Your task to perform on an android device: Check the weather Image 0: 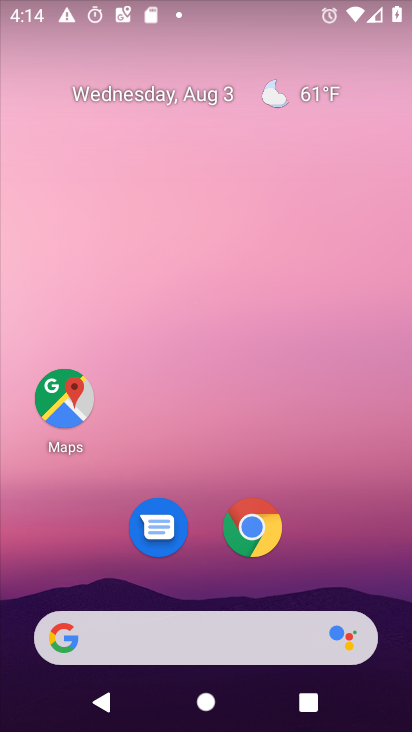
Step 0: drag from (318, 514) to (338, 112)
Your task to perform on an android device: Check the weather Image 1: 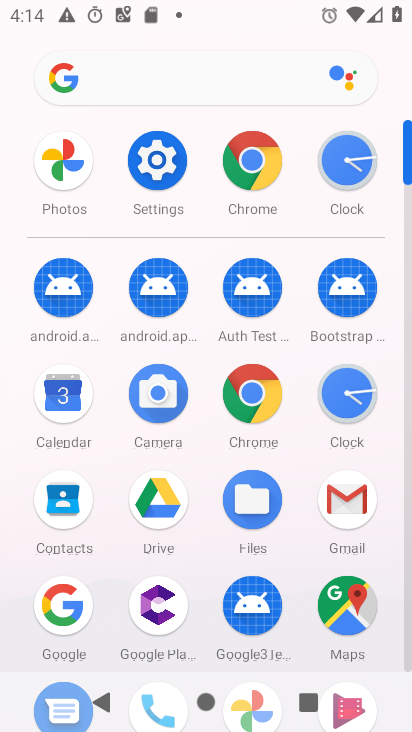
Step 1: click (253, 397)
Your task to perform on an android device: Check the weather Image 2: 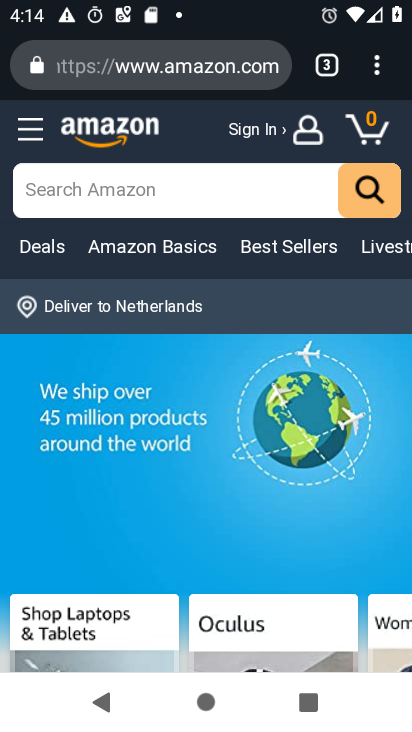
Step 2: click (204, 67)
Your task to perform on an android device: Check the weather Image 3: 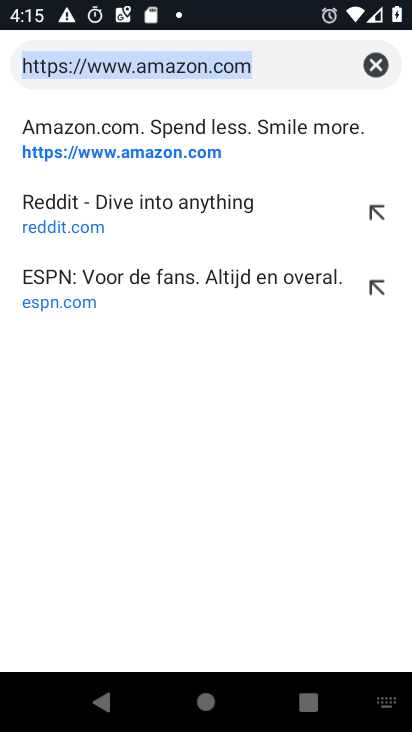
Step 3: type "weather"
Your task to perform on an android device: Check the weather Image 4: 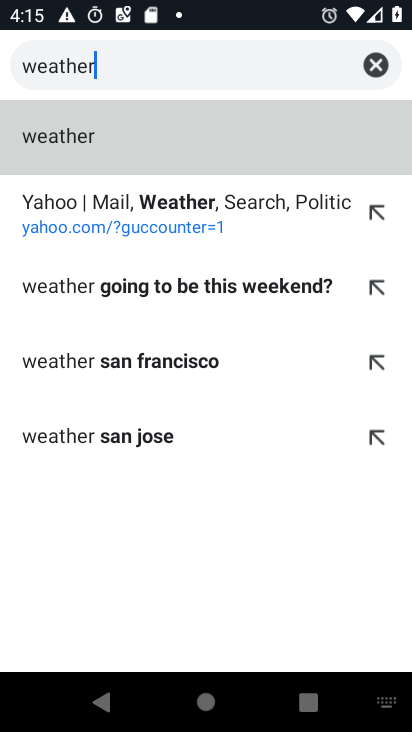
Step 4: click (103, 144)
Your task to perform on an android device: Check the weather Image 5: 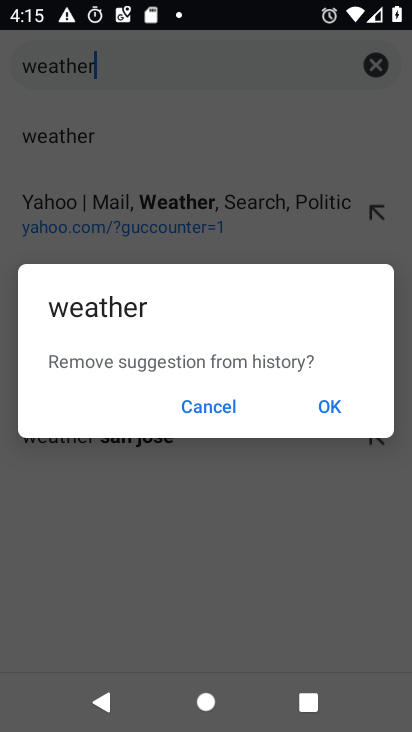
Step 5: click (200, 393)
Your task to perform on an android device: Check the weather Image 6: 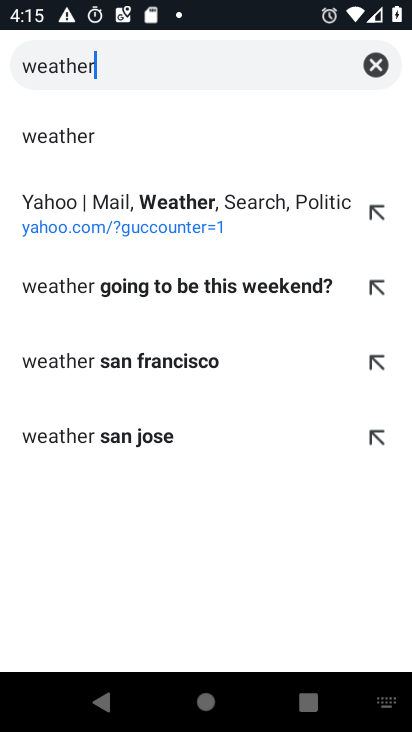
Step 6: click (79, 134)
Your task to perform on an android device: Check the weather Image 7: 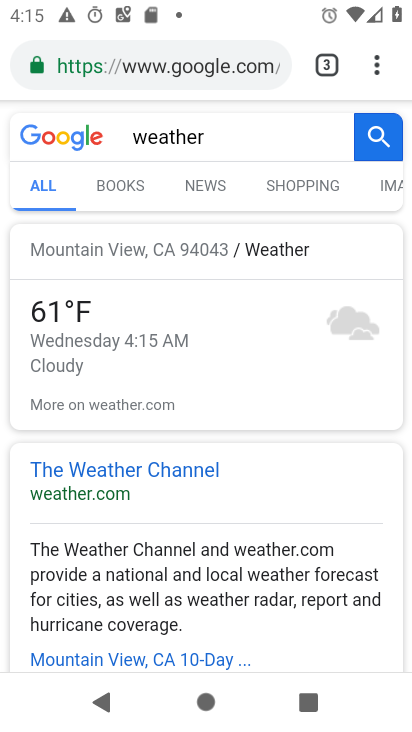
Step 7: task complete